Your task to perform on an android device: turn off javascript in the chrome app Image 0: 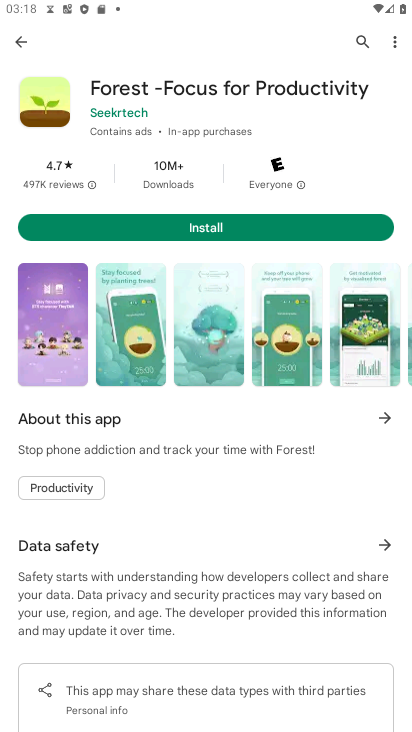
Step 0: drag from (394, 39) to (344, 289)
Your task to perform on an android device: turn off javascript in the chrome app Image 1: 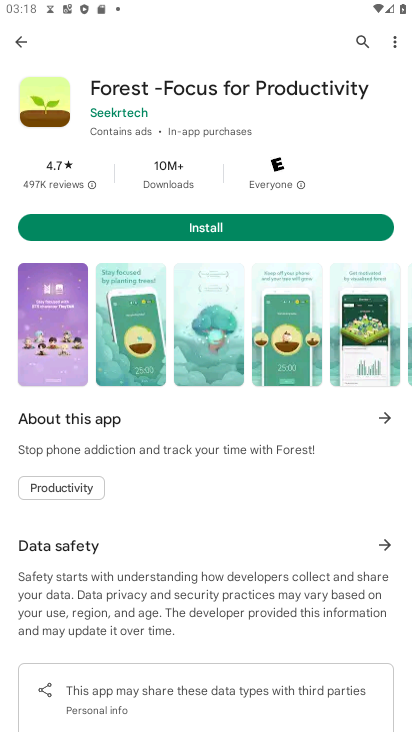
Step 1: press back button
Your task to perform on an android device: turn off javascript in the chrome app Image 2: 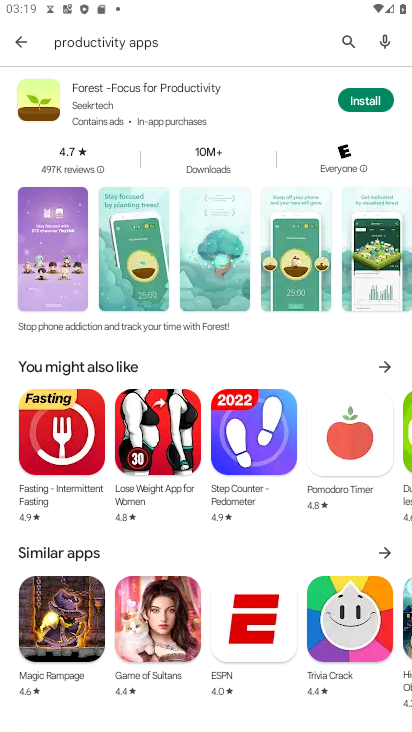
Step 2: press back button
Your task to perform on an android device: turn off javascript in the chrome app Image 3: 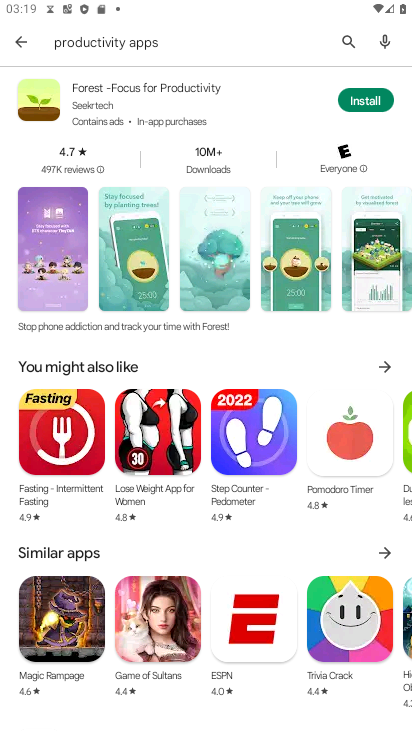
Step 3: press home button
Your task to perform on an android device: turn off javascript in the chrome app Image 4: 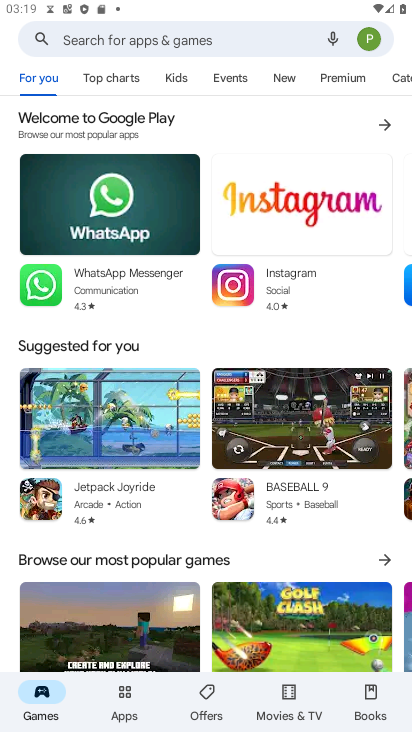
Step 4: press home button
Your task to perform on an android device: turn off javascript in the chrome app Image 5: 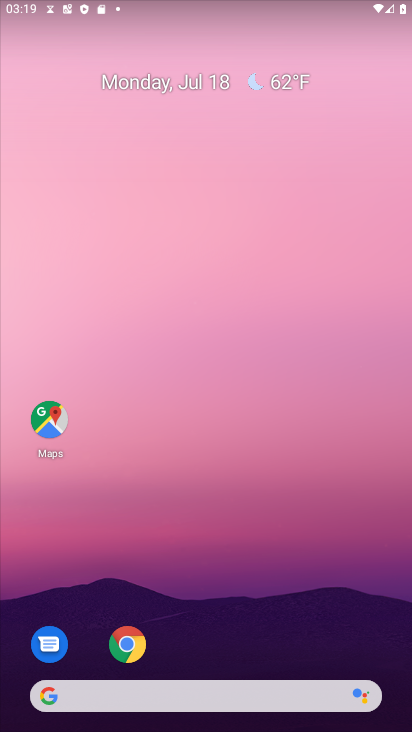
Step 5: press back button
Your task to perform on an android device: turn off javascript in the chrome app Image 6: 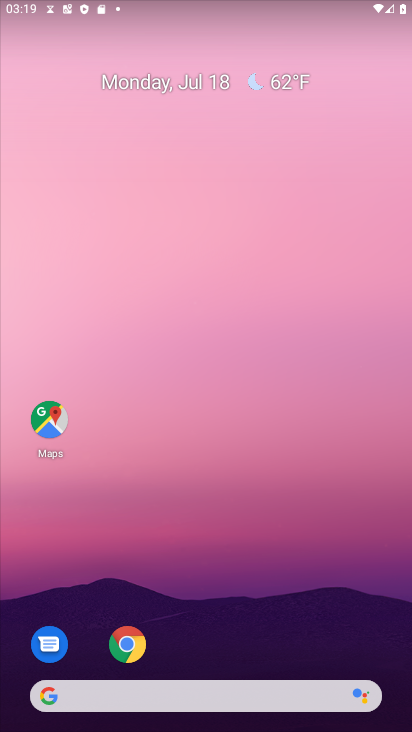
Step 6: drag from (214, 710) to (175, 149)
Your task to perform on an android device: turn off javascript in the chrome app Image 7: 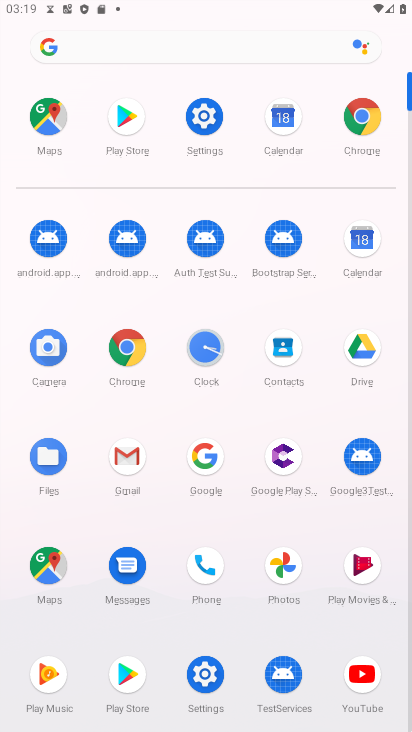
Step 7: click (355, 104)
Your task to perform on an android device: turn off javascript in the chrome app Image 8: 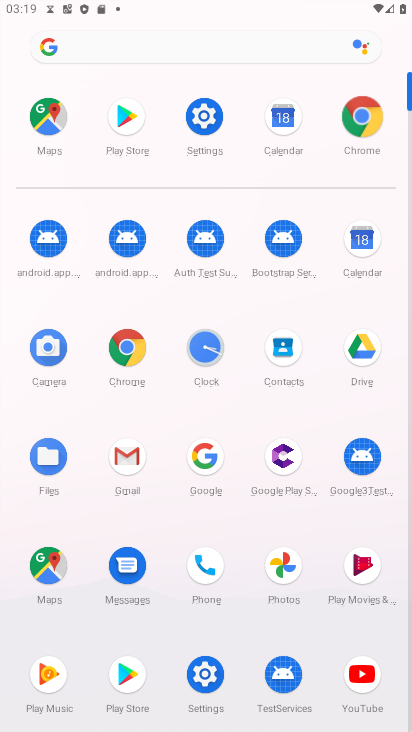
Step 8: click (355, 104)
Your task to perform on an android device: turn off javascript in the chrome app Image 9: 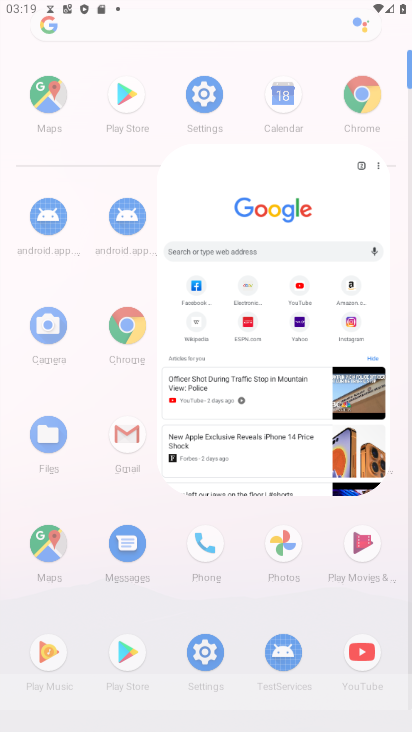
Step 9: click (355, 104)
Your task to perform on an android device: turn off javascript in the chrome app Image 10: 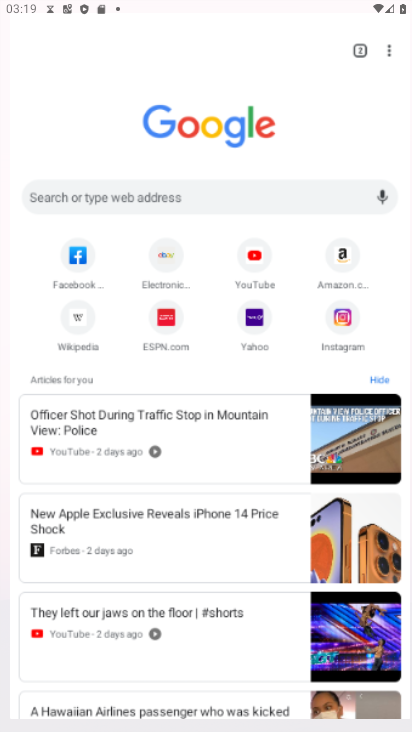
Step 10: click (355, 104)
Your task to perform on an android device: turn off javascript in the chrome app Image 11: 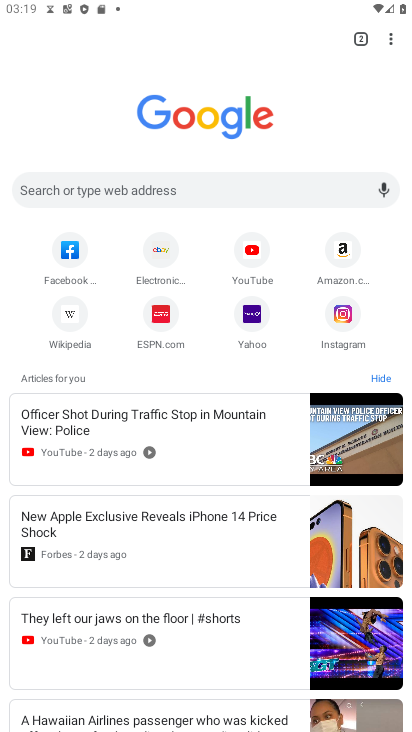
Step 11: drag from (386, 34) to (239, 339)
Your task to perform on an android device: turn off javascript in the chrome app Image 12: 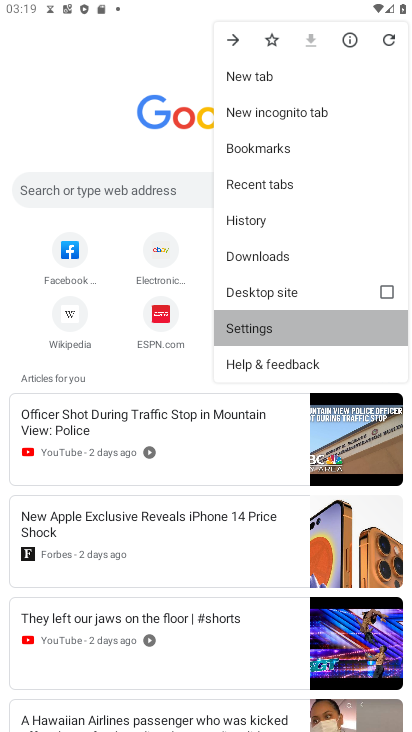
Step 12: click (238, 337)
Your task to perform on an android device: turn off javascript in the chrome app Image 13: 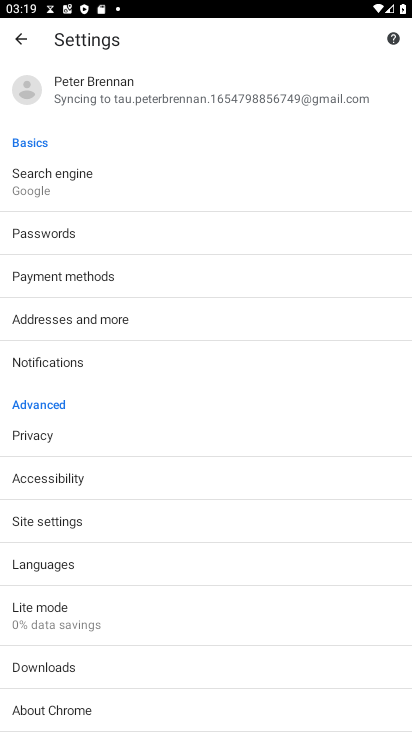
Step 13: click (41, 513)
Your task to perform on an android device: turn off javascript in the chrome app Image 14: 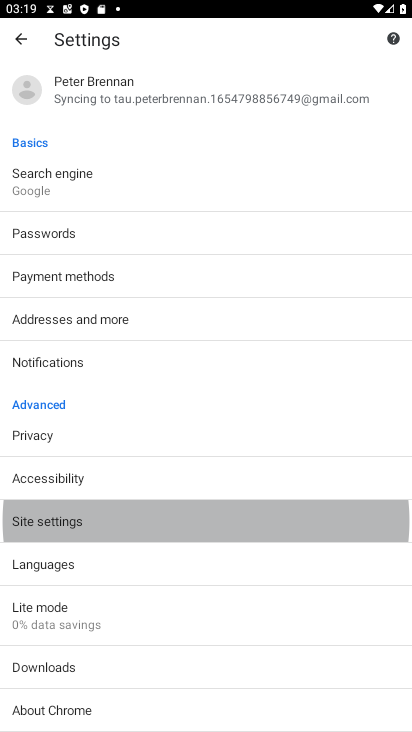
Step 14: click (42, 515)
Your task to perform on an android device: turn off javascript in the chrome app Image 15: 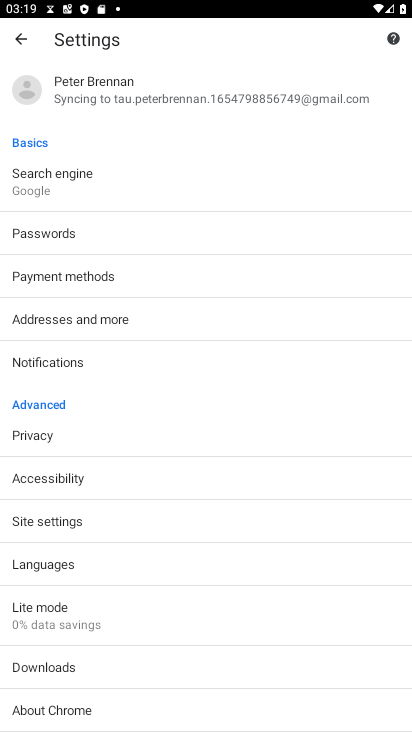
Step 15: click (42, 515)
Your task to perform on an android device: turn off javascript in the chrome app Image 16: 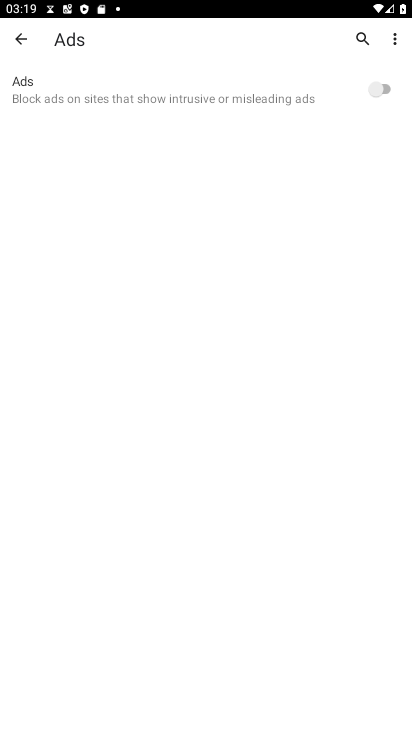
Step 16: click (10, 34)
Your task to perform on an android device: turn off javascript in the chrome app Image 17: 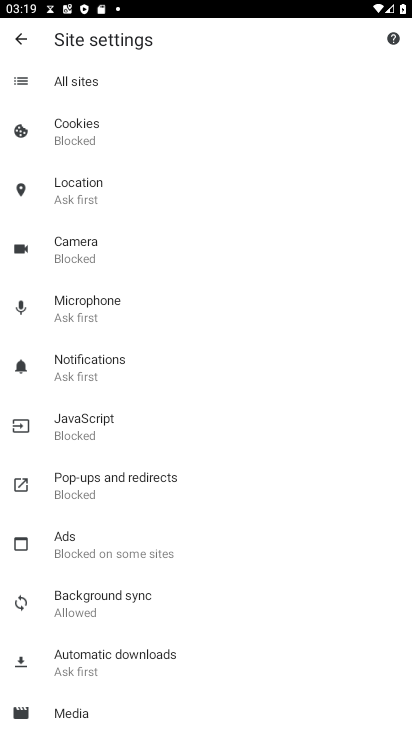
Step 17: click (74, 437)
Your task to perform on an android device: turn off javascript in the chrome app Image 18: 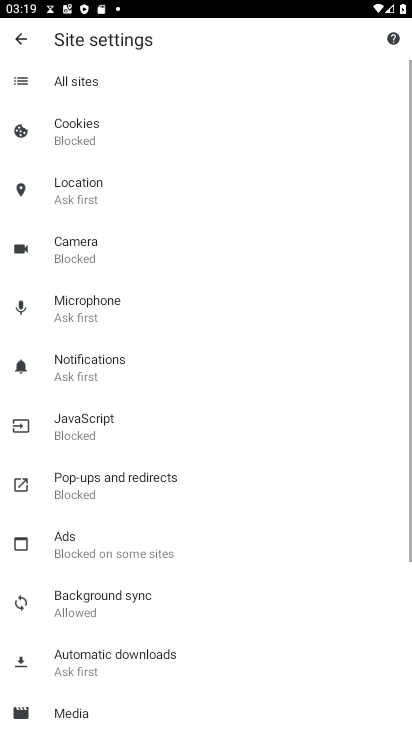
Step 18: click (73, 432)
Your task to perform on an android device: turn off javascript in the chrome app Image 19: 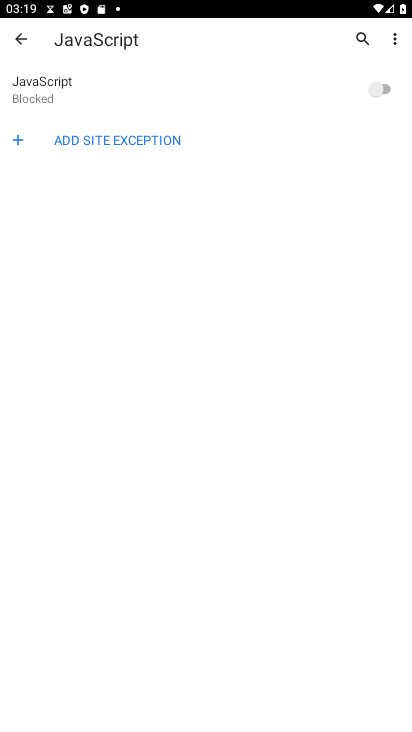
Step 19: task complete